Your task to perform on an android device: Is it going to rain this weekend? Image 0: 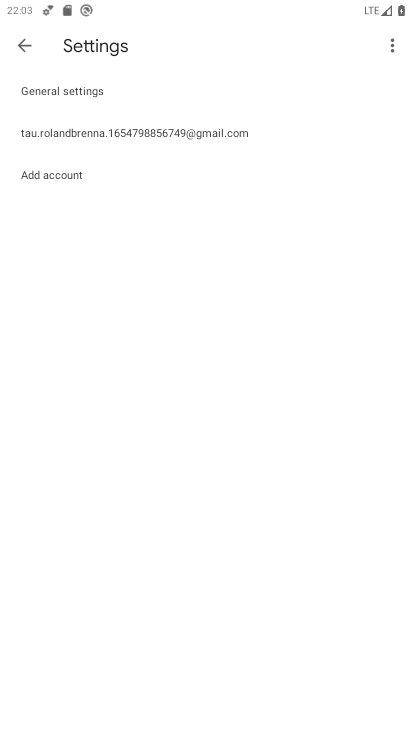
Step 0: press home button
Your task to perform on an android device: Is it going to rain this weekend? Image 1: 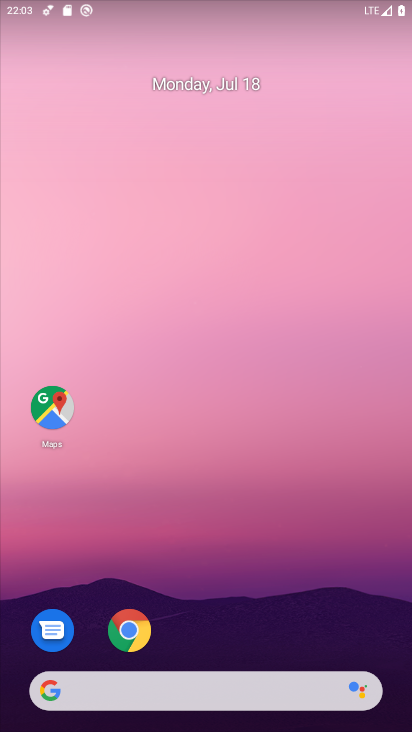
Step 1: drag from (171, 604) to (171, 151)
Your task to perform on an android device: Is it going to rain this weekend? Image 2: 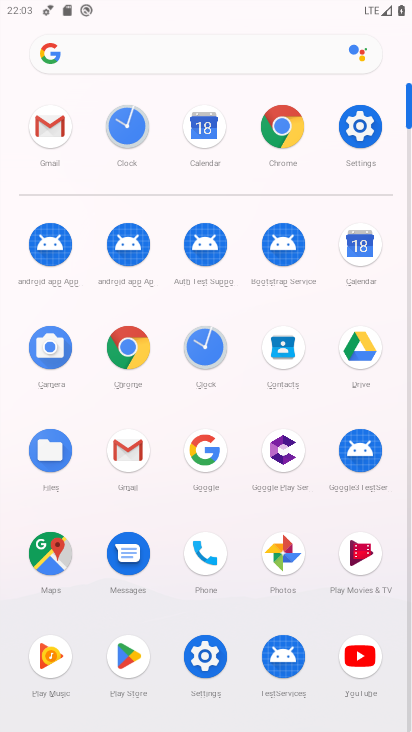
Step 2: click (276, 121)
Your task to perform on an android device: Is it going to rain this weekend? Image 3: 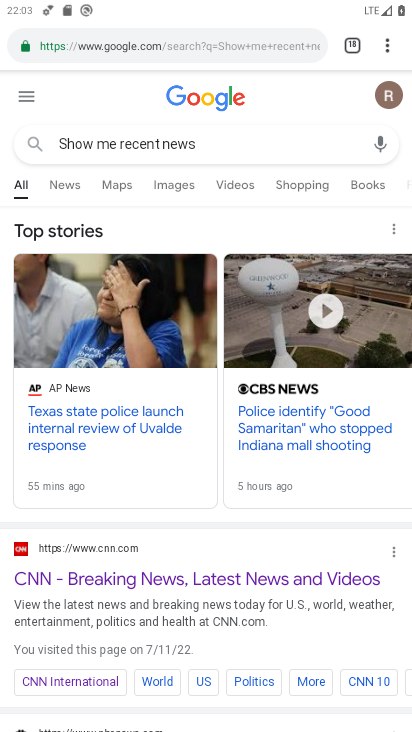
Step 3: click (386, 48)
Your task to perform on an android device: Is it going to rain this weekend? Image 4: 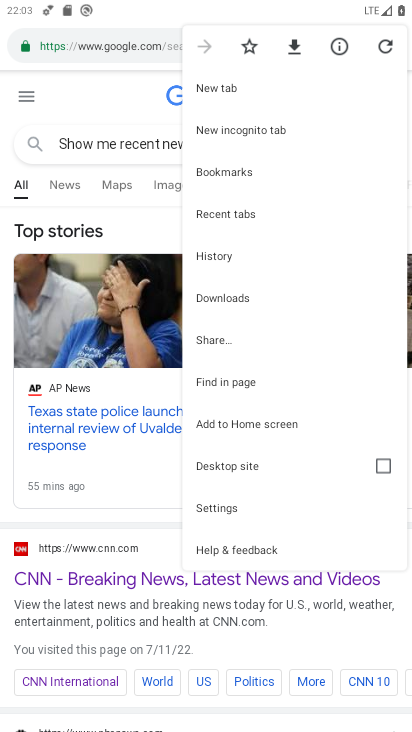
Step 4: click (251, 74)
Your task to perform on an android device: Is it going to rain this weekend? Image 5: 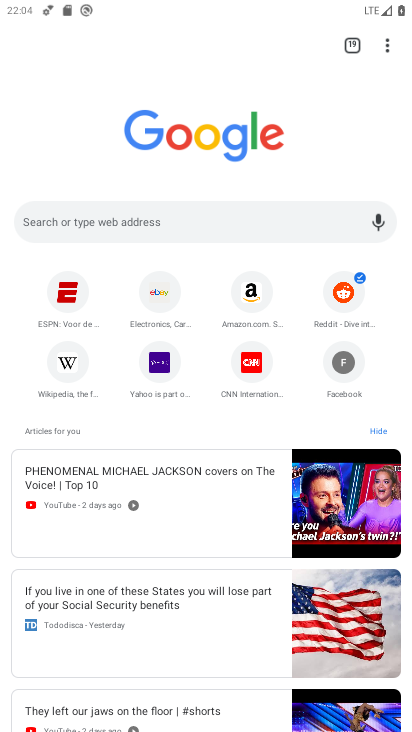
Step 5: click (292, 203)
Your task to perform on an android device: Is it going to rain this weekend? Image 6: 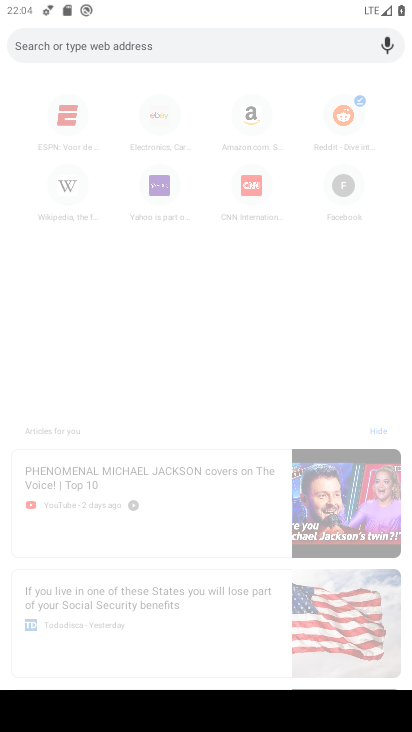
Step 6: type "Is it going to rain this weekend "
Your task to perform on an android device: Is it going to rain this weekend? Image 7: 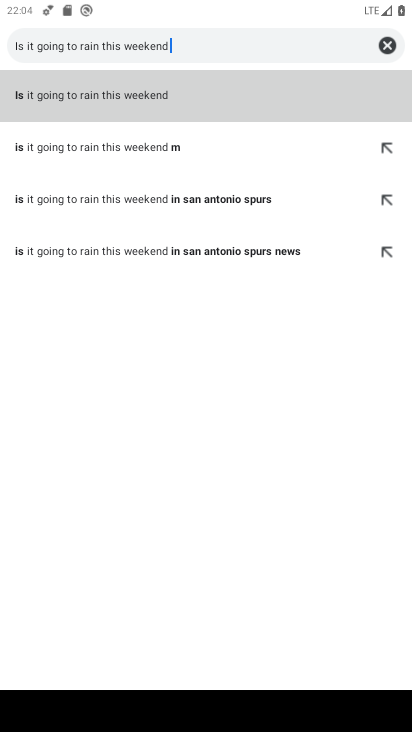
Step 7: click (219, 90)
Your task to perform on an android device: Is it going to rain this weekend? Image 8: 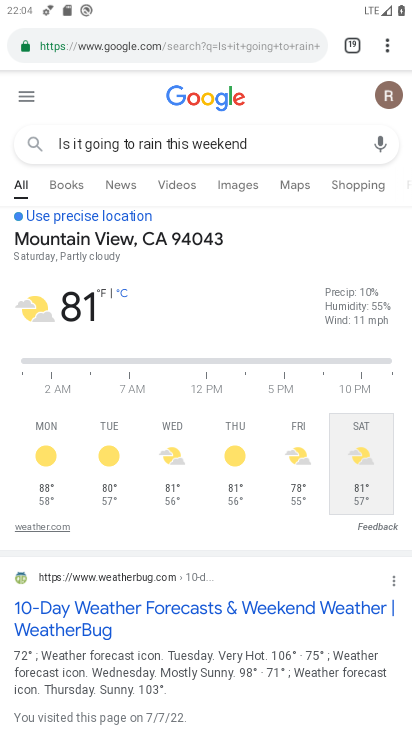
Step 8: task complete